Your task to perform on an android device: turn off airplane mode Image 0: 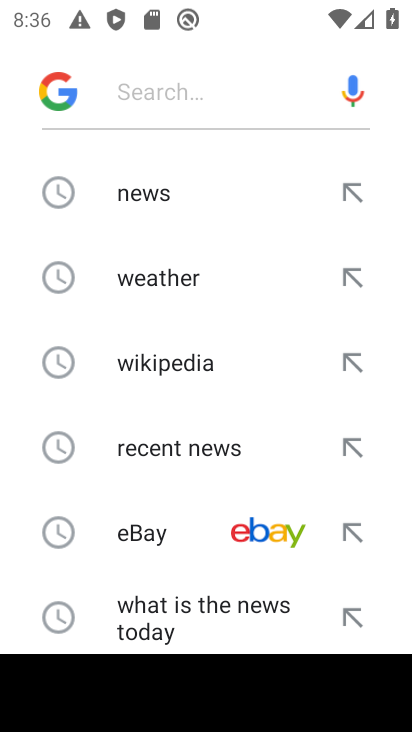
Step 0: press home button
Your task to perform on an android device: turn off airplane mode Image 1: 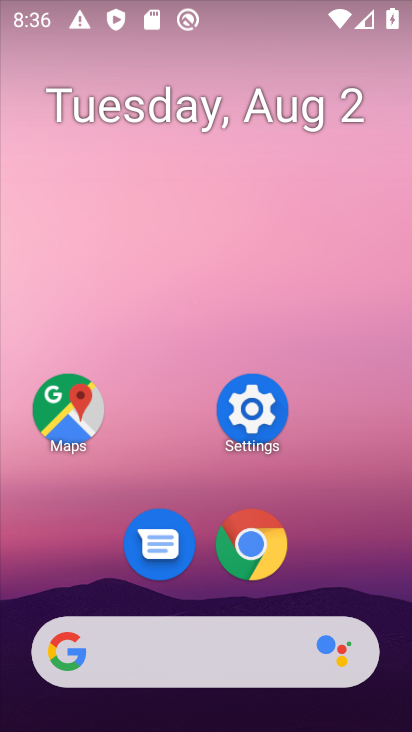
Step 1: click (248, 417)
Your task to perform on an android device: turn off airplane mode Image 2: 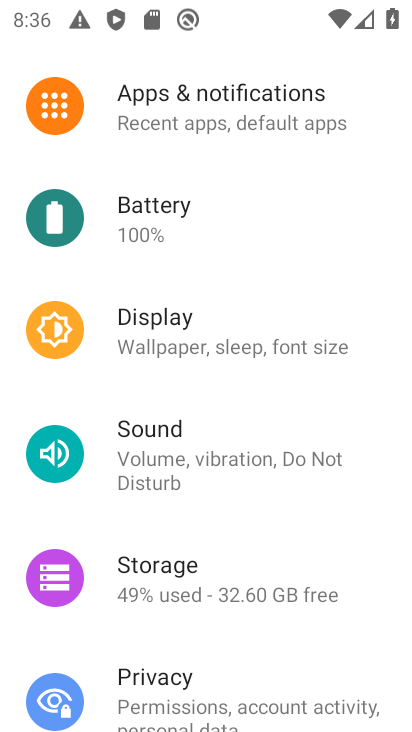
Step 2: drag from (316, 187) to (266, 573)
Your task to perform on an android device: turn off airplane mode Image 3: 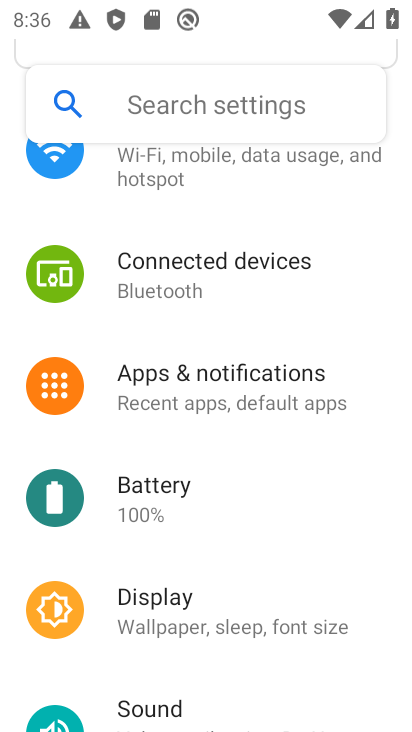
Step 3: drag from (330, 212) to (291, 652)
Your task to perform on an android device: turn off airplane mode Image 4: 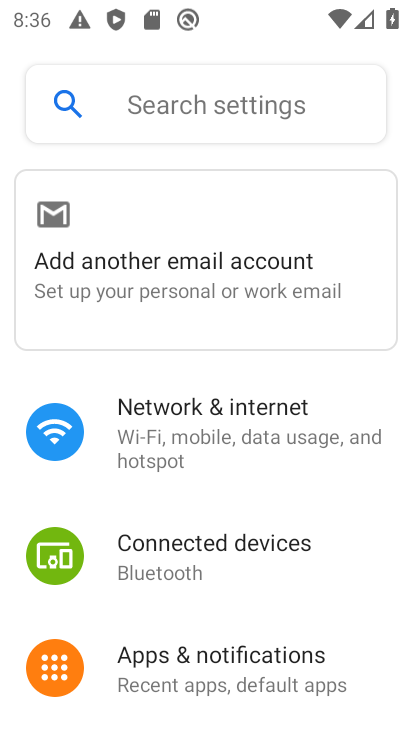
Step 4: click (250, 415)
Your task to perform on an android device: turn off airplane mode Image 5: 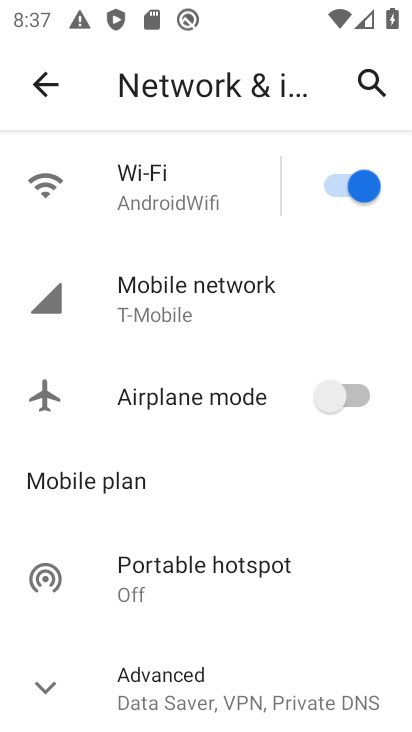
Step 5: task complete